Your task to perform on an android device: View the shopping cart on newegg.com. Image 0: 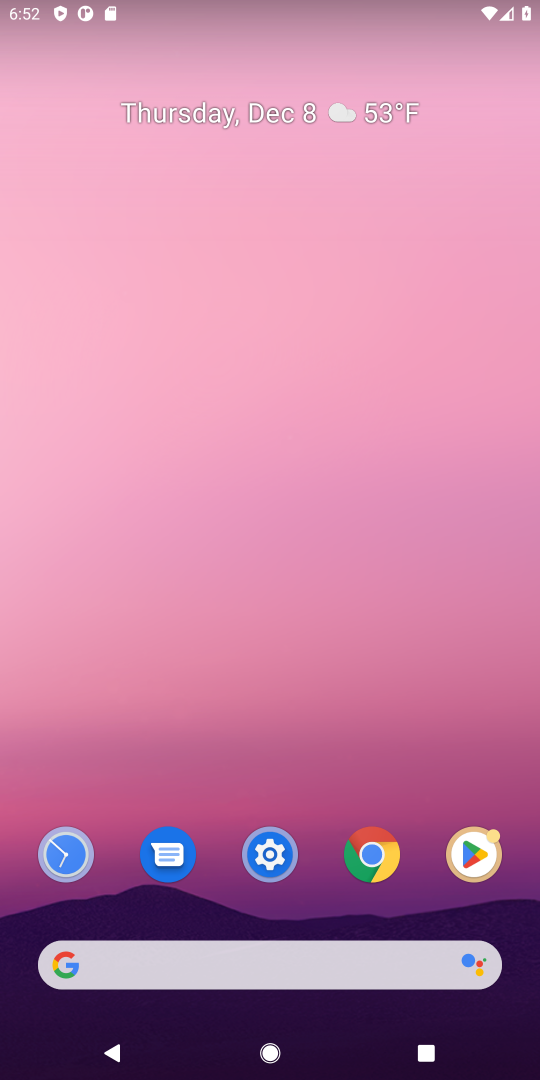
Step 0: press home button
Your task to perform on an android device: View the shopping cart on newegg.com. Image 1: 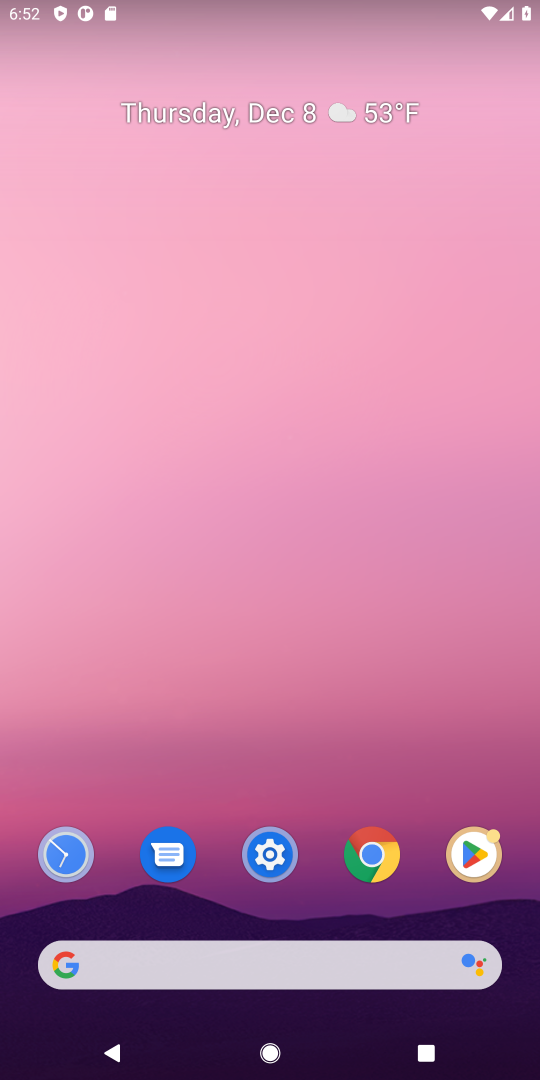
Step 1: click (83, 962)
Your task to perform on an android device: View the shopping cart on newegg.com. Image 2: 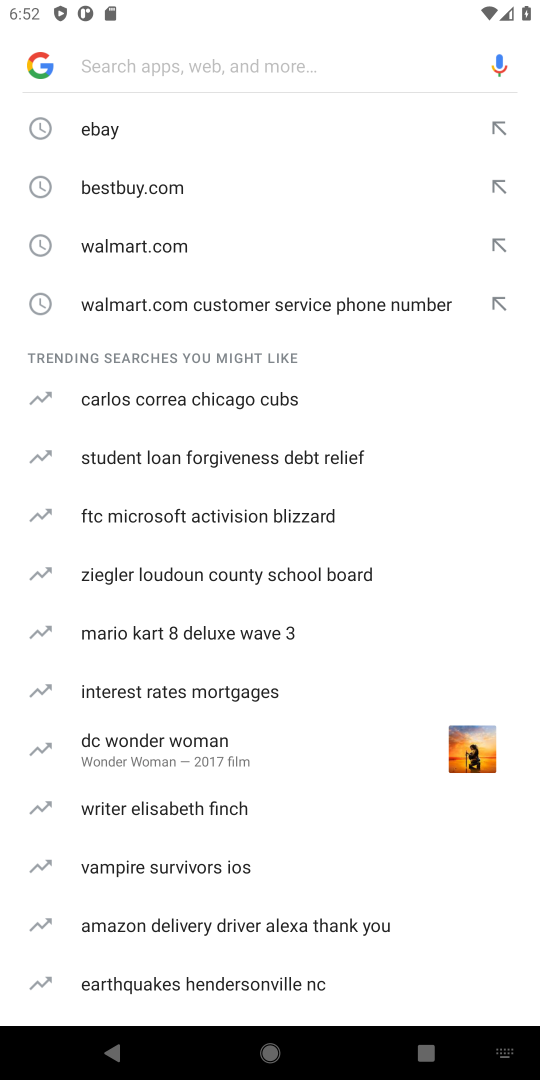
Step 2: type " newegg.com"
Your task to perform on an android device: View the shopping cart on newegg.com. Image 3: 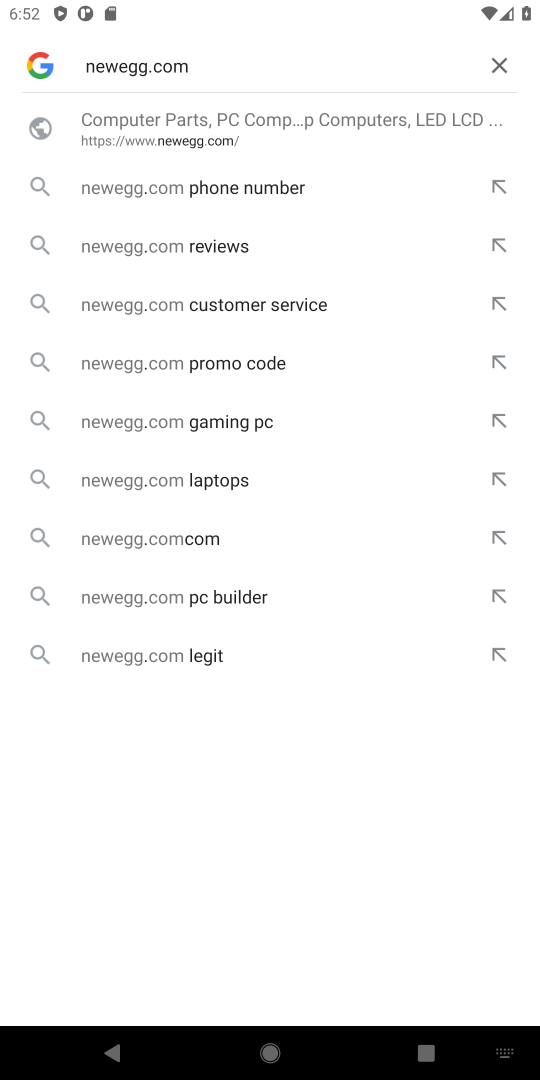
Step 3: press enter
Your task to perform on an android device: View the shopping cart on newegg.com. Image 4: 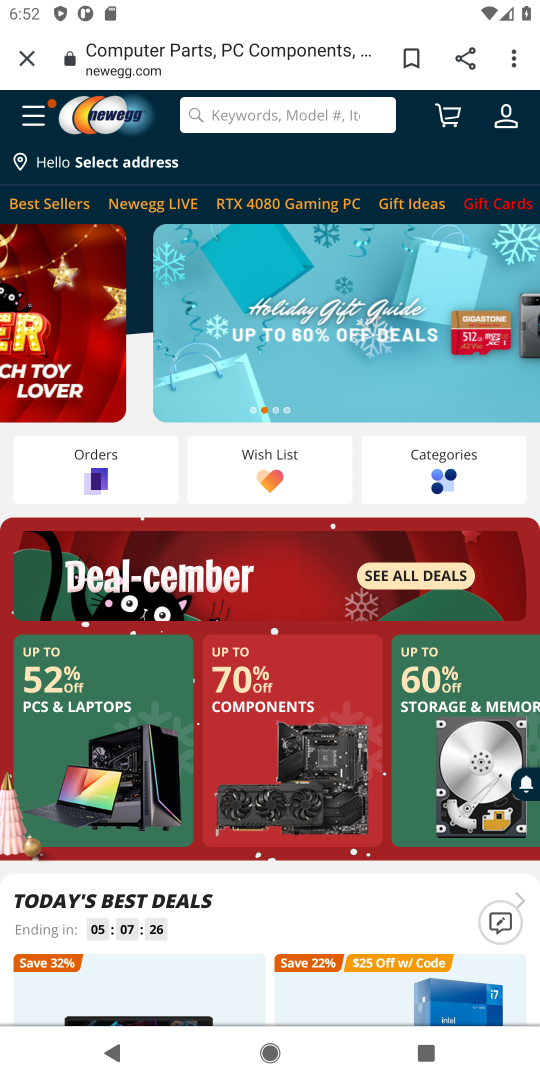
Step 4: click (442, 113)
Your task to perform on an android device: View the shopping cart on newegg.com. Image 5: 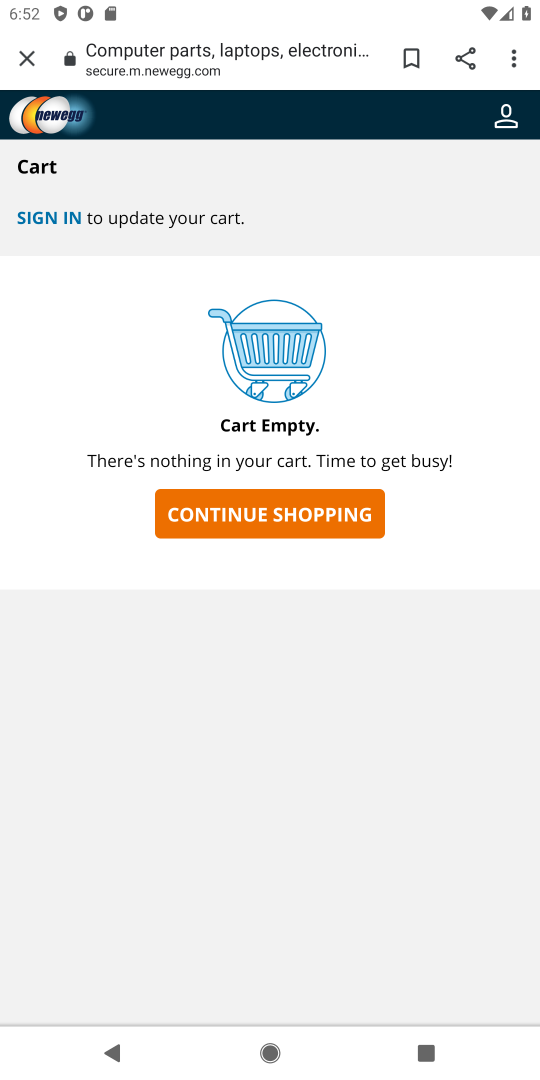
Step 5: task complete